Your task to perform on an android device: toggle location history Image 0: 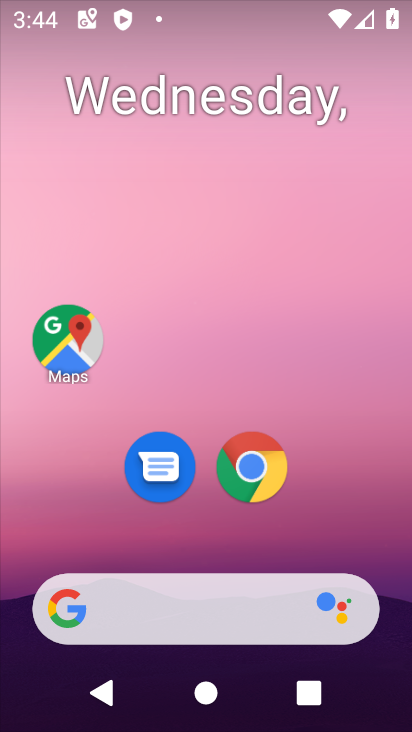
Step 0: click (60, 336)
Your task to perform on an android device: toggle location history Image 1: 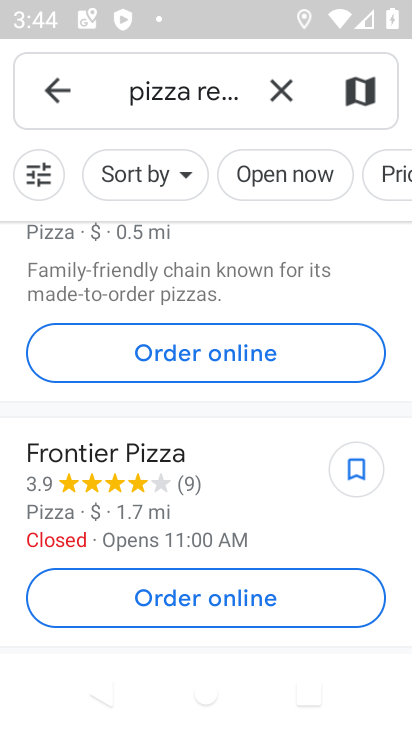
Step 1: press back button
Your task to perform on an android device: toggle location history Image 2: 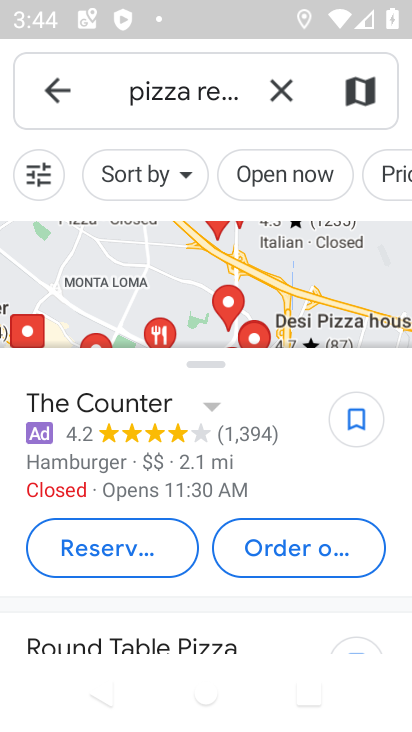
Step 2: press back button
Your task to perform on an android device: toggle location history Image 3: 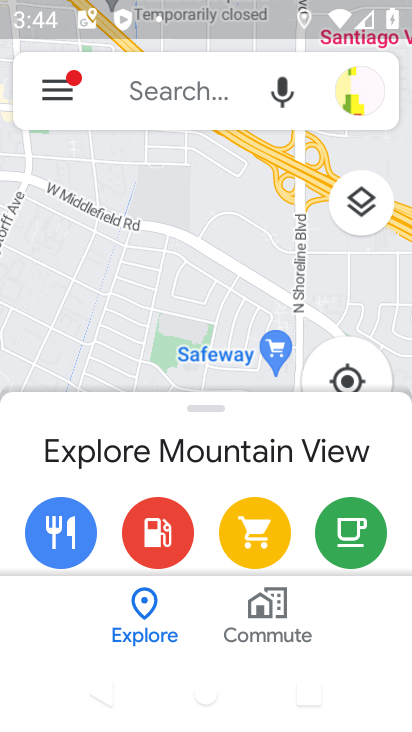
Step 3: click (51, 80)
Your task to perform on an android device: toggle location history Image 4: 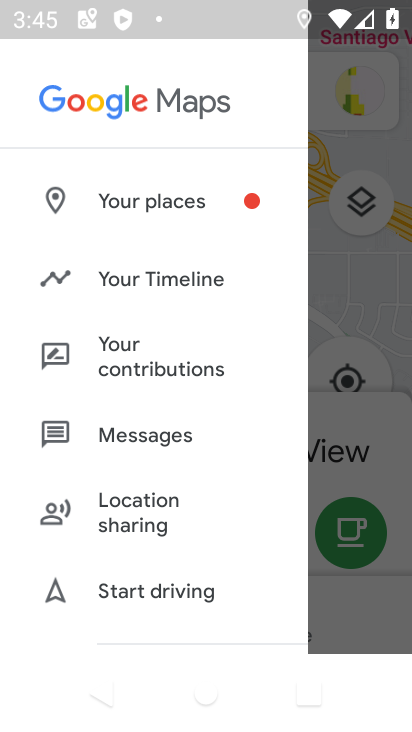
Step 4: drag from (247, 514) to (246, 336)
Your task to perform on an android device: toggle location history Image 5: 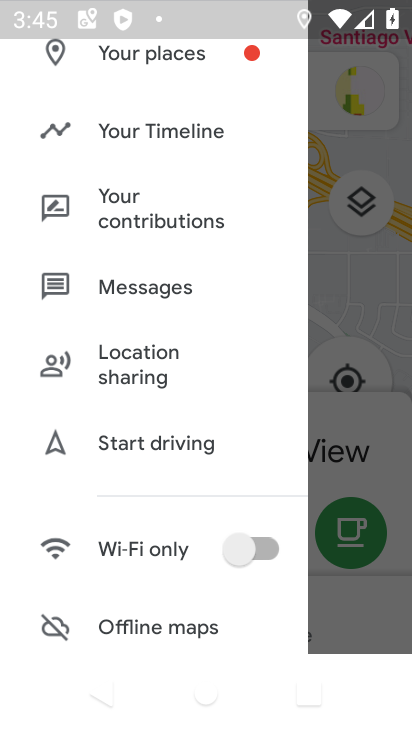
Step 5: drag from (216, 507) to (230, 279)
Your task to perform on an android device: toggle location history Image 6: 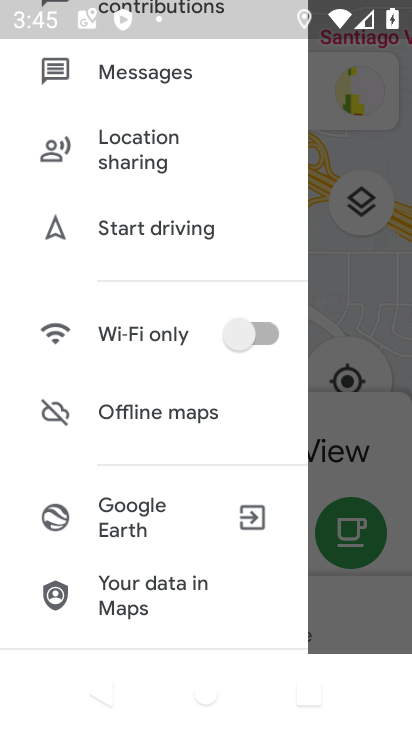
Step 6: drag from (204, 529) to (214, 212)
Your task to perform on an android device: toggle location history Image 7: 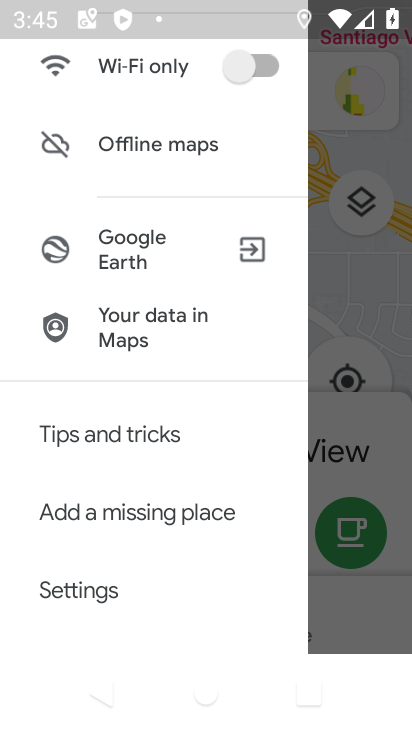
Step 7: drag from (189, 512) to (199, 254)
Your task to perform on an android device: toggle location history Image 8: 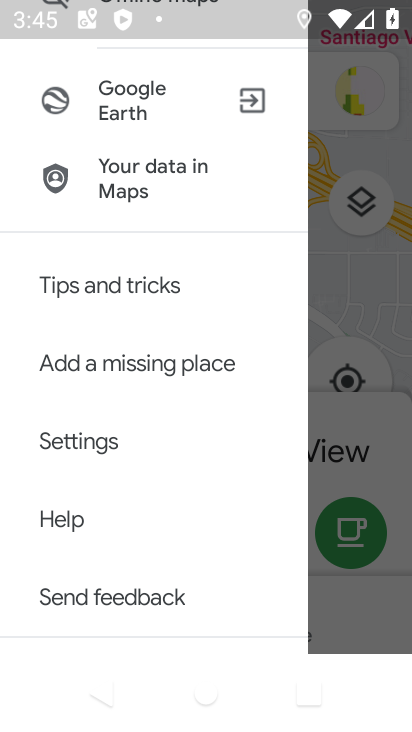
Step 8: click (79, 453)
Your task to perform on an android device: toggle location history Image 9: 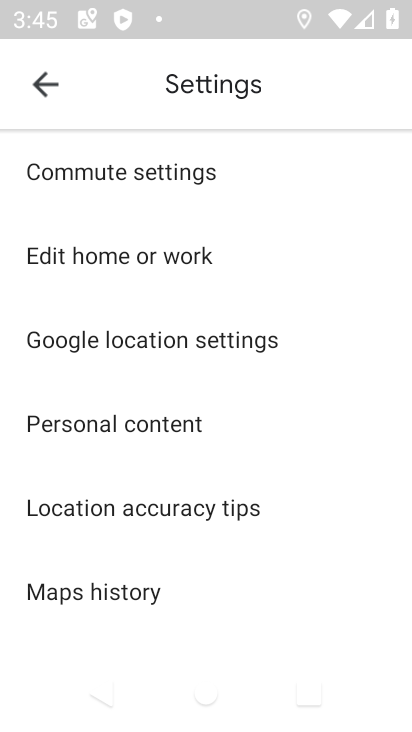
Step 9: click (96, 421)
Your task to perform on an android device: toggle location history Image 10: 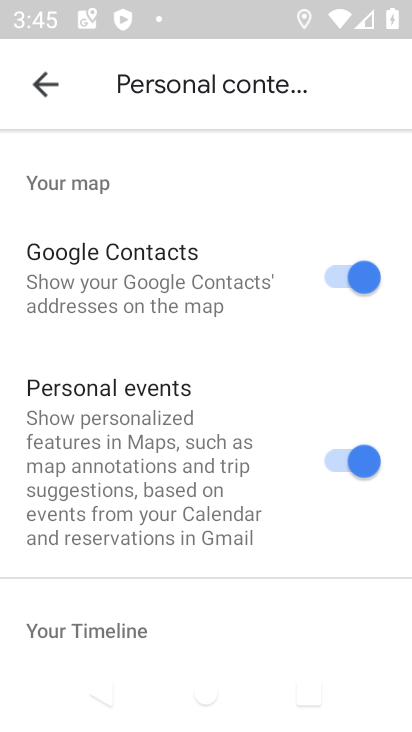
Step 10: drag from (310, 552) to (297, 323)
Your task to perform on an android device: toggle location history Image 11: 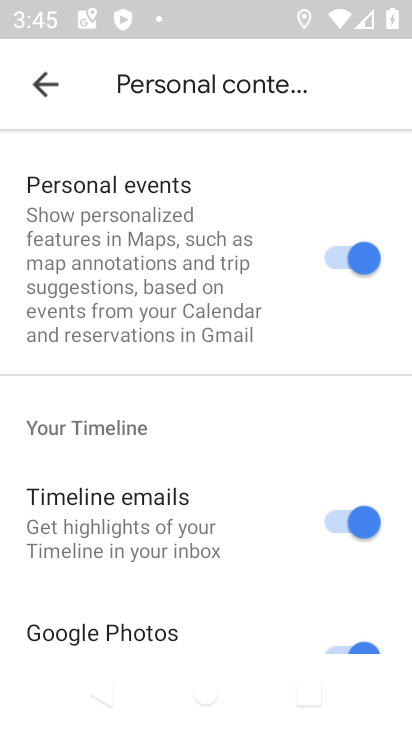
Step 11: drag from (288, 541) to (263, 277)
Your task to perform on an android device: toggle location history Image 12: 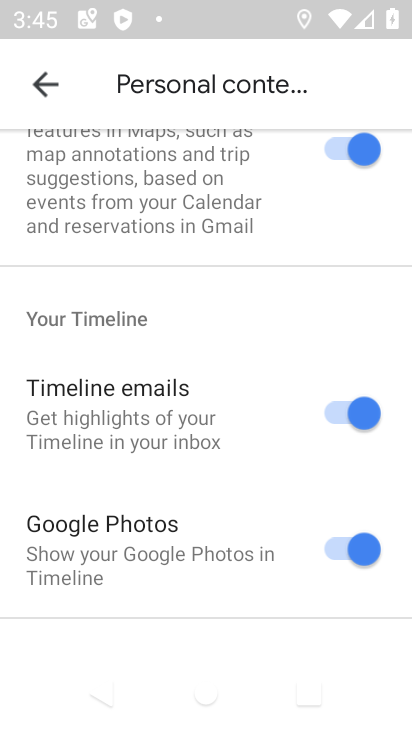
Step 12: drag from (234, 469) to (214, 221)
Your task to perform on an android device: toggle location history Image 13: 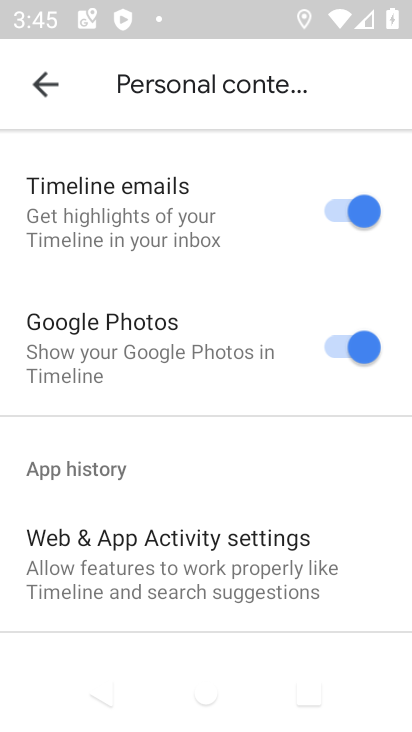
Step 13: drag from (219, 469) to (245, 182)
Your task to perform on an android device: toggle location history Image 14: 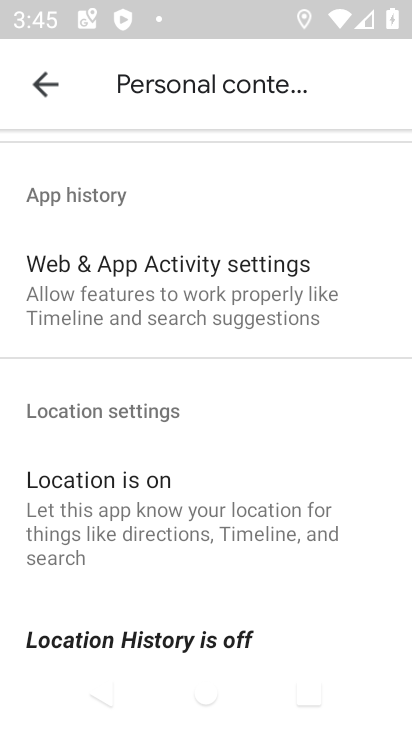
Step 14: drag from (258, 529) to (256, 283)
Your task to perform on an android device: toggle location history Image 15: 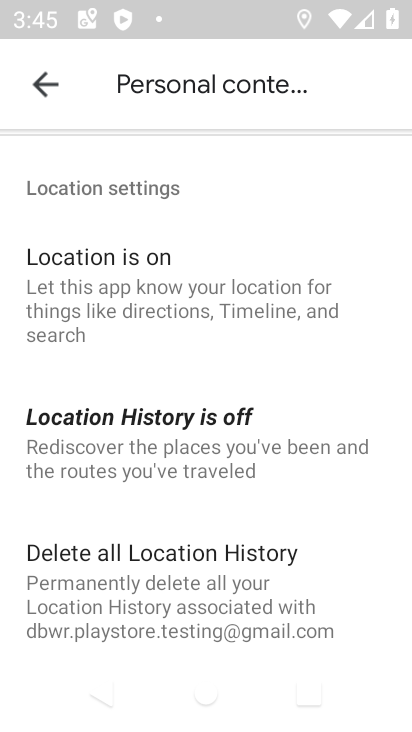
Step 15: click (120, 431)
Your task to perform on an android device: toggle location history Image 16: 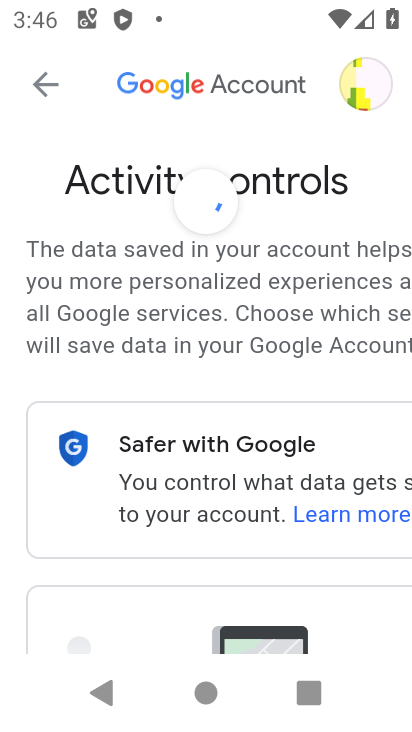
Step 16: drag from (237, 602) to (255, 276)
Your task to perform on an android device: toggle location history Image 17: 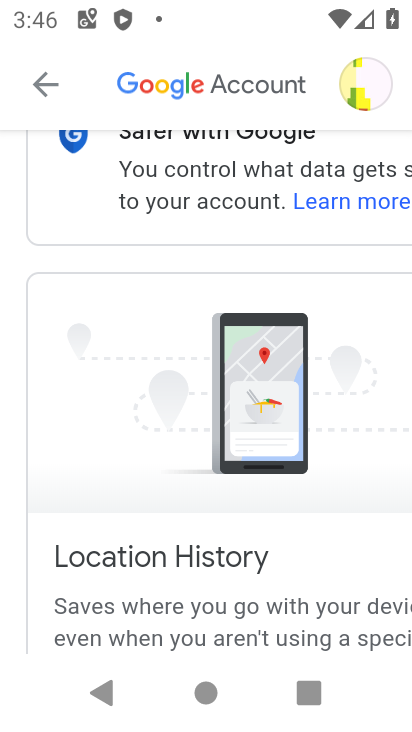
Step 17: drag from (281, 571) to (263, 270)
Your task to perform on an android device: toggle location history Image 18: 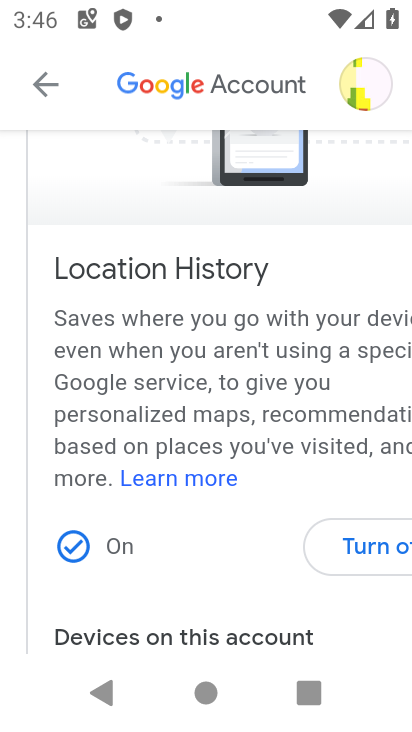
Step 18: click (379, 554)
Your task to perform on an android device: toggle location history Image 19: 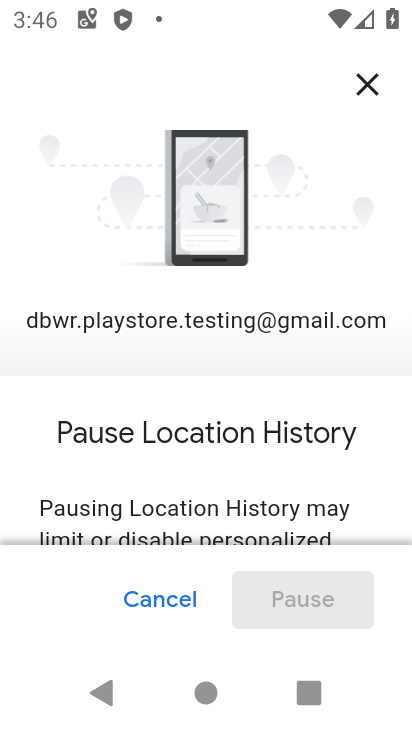
Step 19: drag from (299, 491) to (221, 190)
Your task to perform on an android device: toggle location history Image 20: 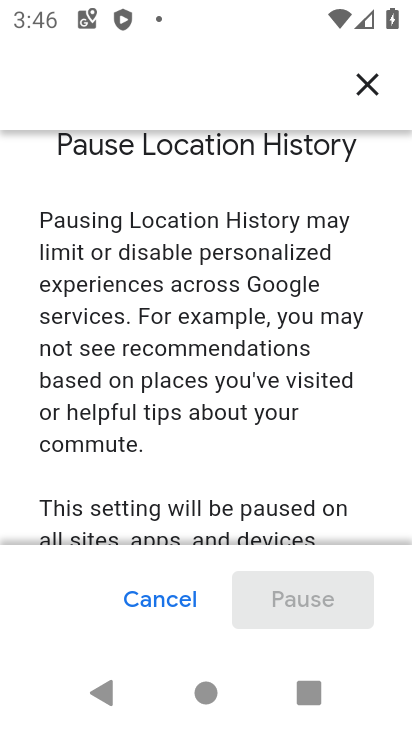
Step 20: drag from (234, 497) to (208, 245)
Your task to perform on an android device: toggle location history Image 21: 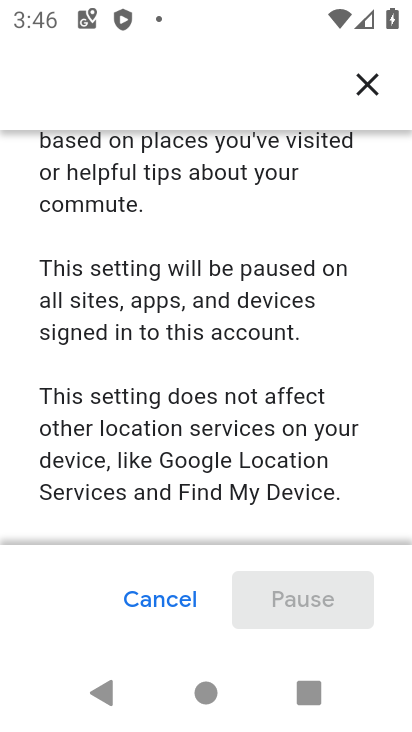
Step 21: drag from (228, 478) to (167, 154)
Your task to perform on an android device: toggle location history Image 22: 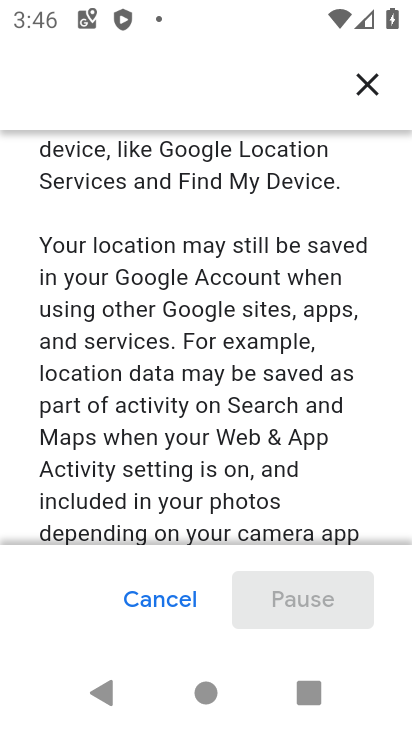
Step 22: drag from (215, 499) to (193, 199)
Your task to perform on an android device: toggle location history Image 23: 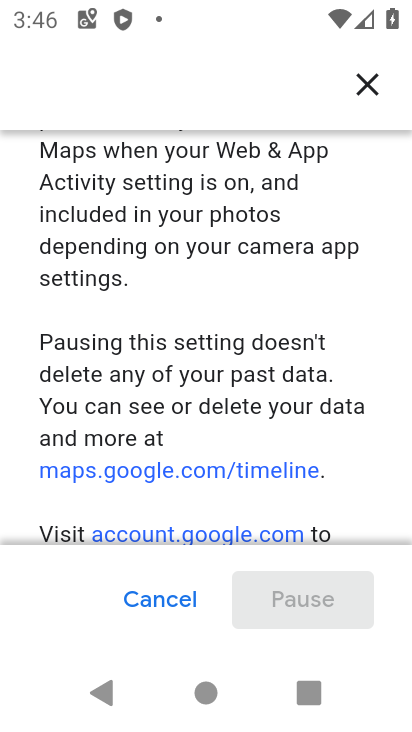
Step 23: drag from (216, 429) to (132, 106)
Your task to perform on an android device: toggle location history Image 24: 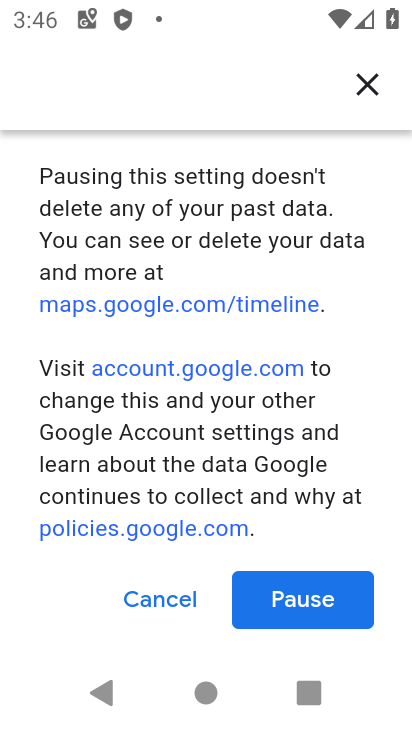
Step 24: click (287, 601)
Your task to perform on an android device: toggle location history Image 25: 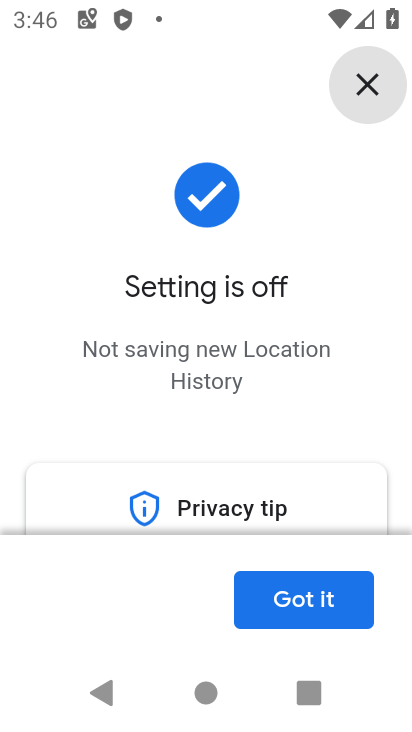
Step 25: click (304, 592)
Your task to perform on an android device: toggle location history Image 26: 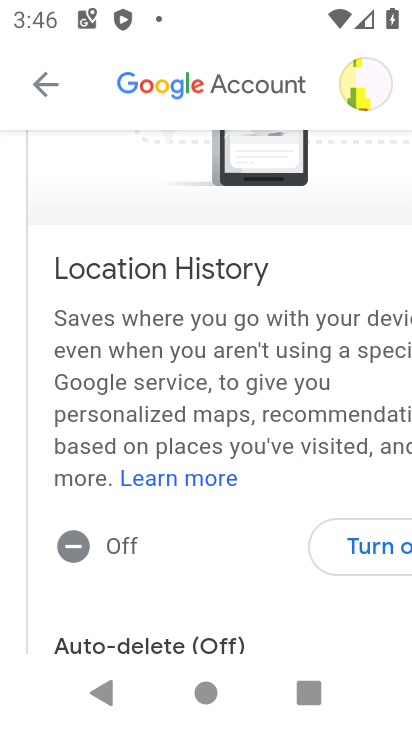
Step 26: task complete